Your task to perform on an android device: What's the weather? Image 0: 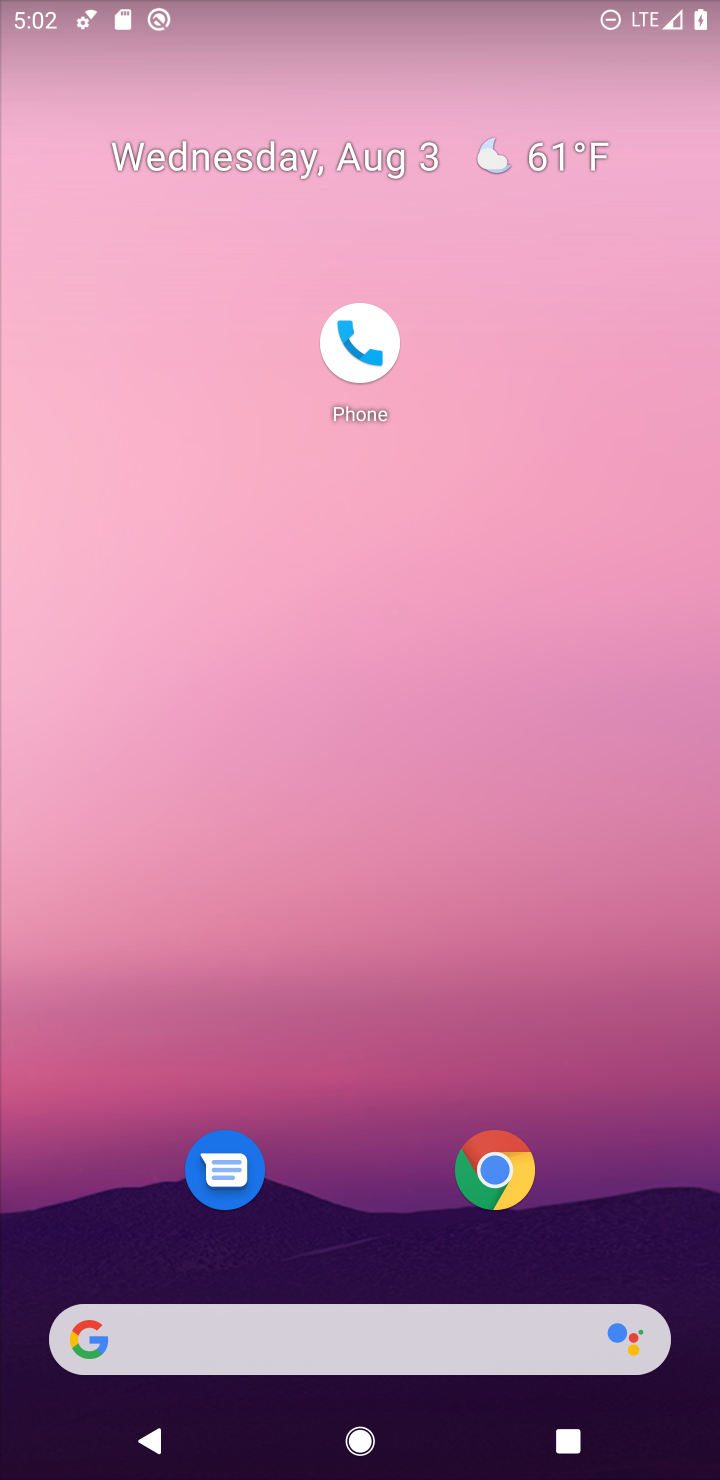
Step 0: click (418, 1317)
Your task to perform on an android device: What's the weather? Image 1: 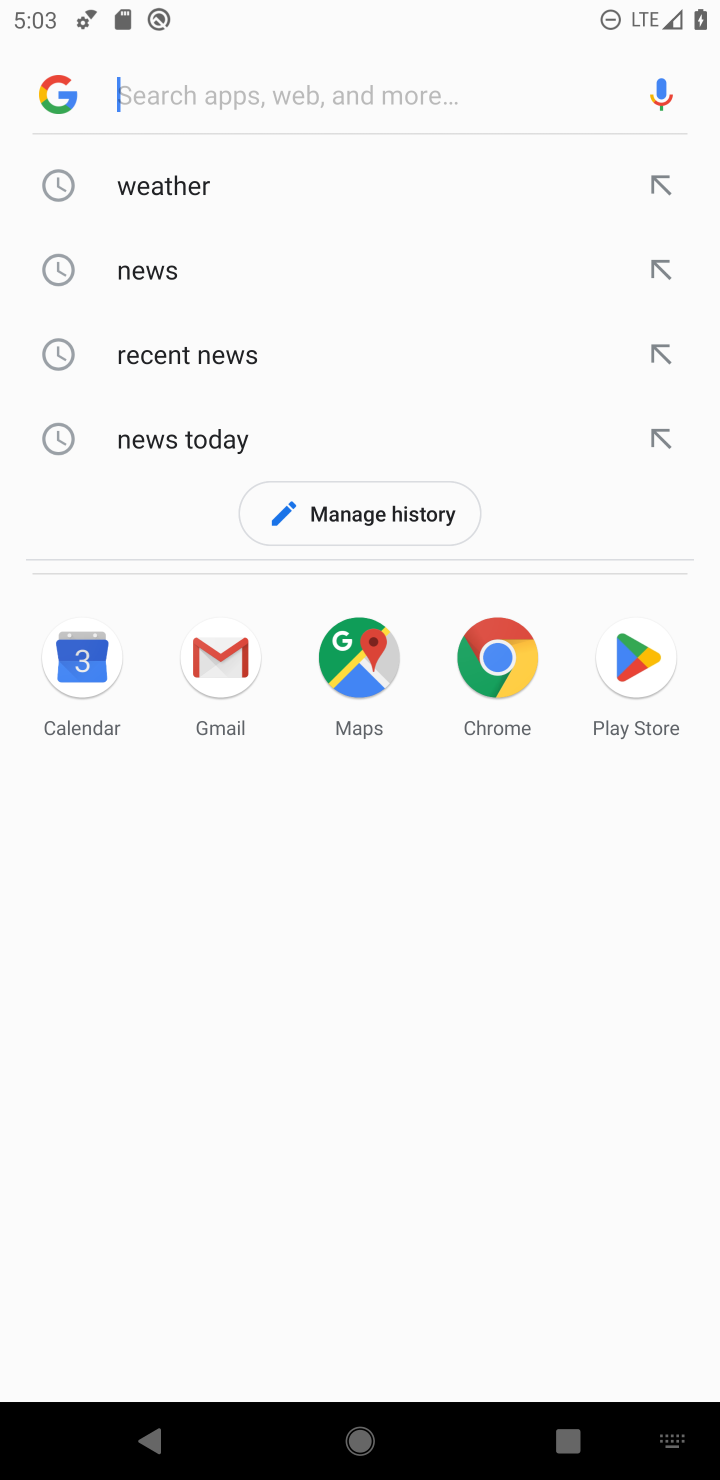
Step 1: click (199, 186)
Your task to perform on an android device: What's the weather? Image 2: 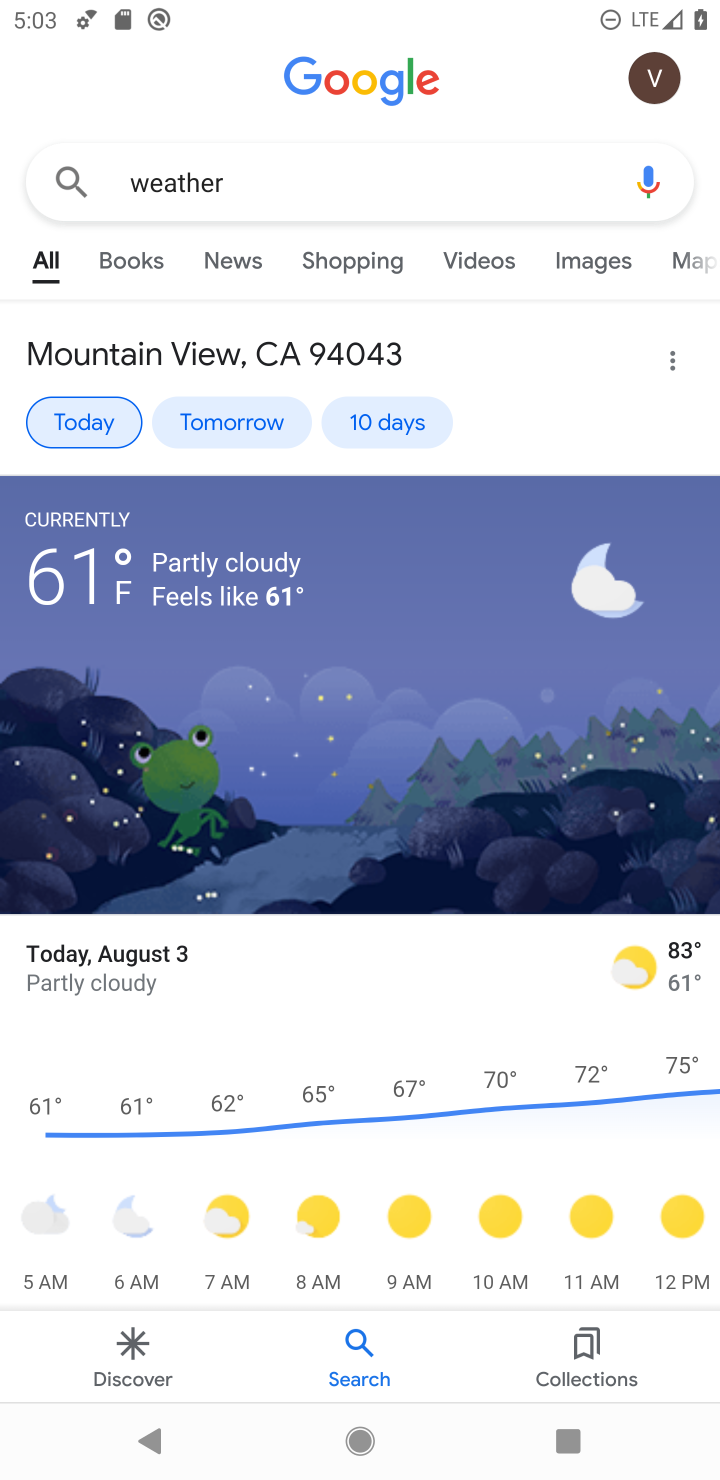
Step 2: task complete